Your task to perform on an android device: turn notification dots off Image 0: 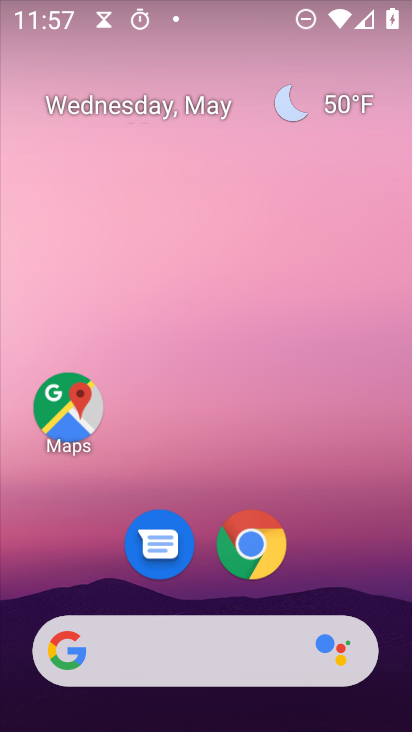
Step 0: drag from (251, 602) to (282, 326)
Your task to perform on an android device: turn notification dots off Image 1: 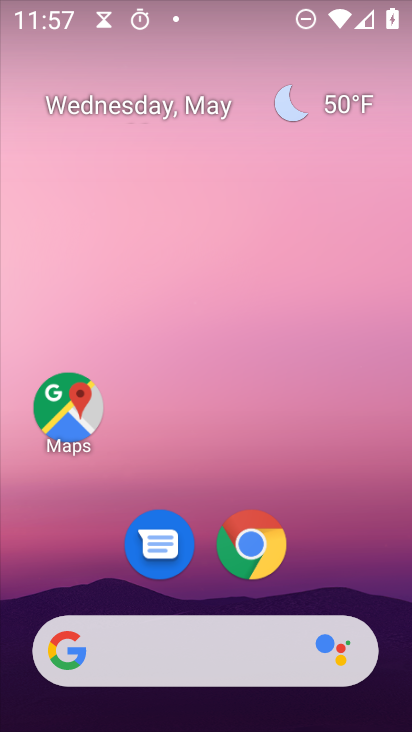
Step 1: drag from (209, 598) to (388, 12)
Your task to perform on an android device: turn notification dots off Image 2: 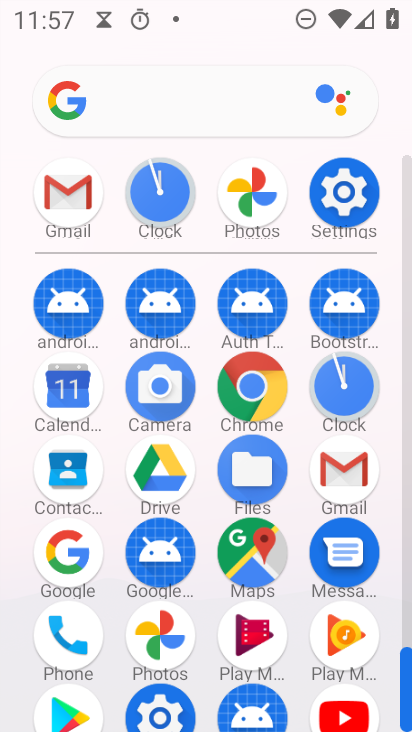
Step 2: click (341, 187)
Your task to perform on an android device: turn notification dots off Image 3: 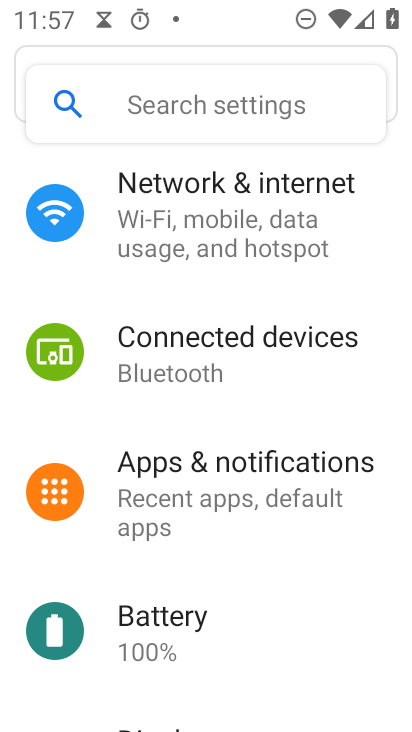
Step 3: click (245, 516)
Your task to perform on an android device: turn notification dots off Image 4: 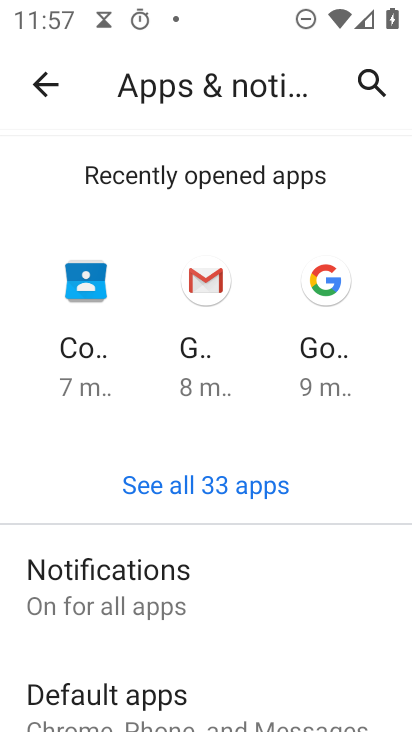
Step 4: click (123, 608)
Your task to perform on an android device: turn notification dots off Image 5: 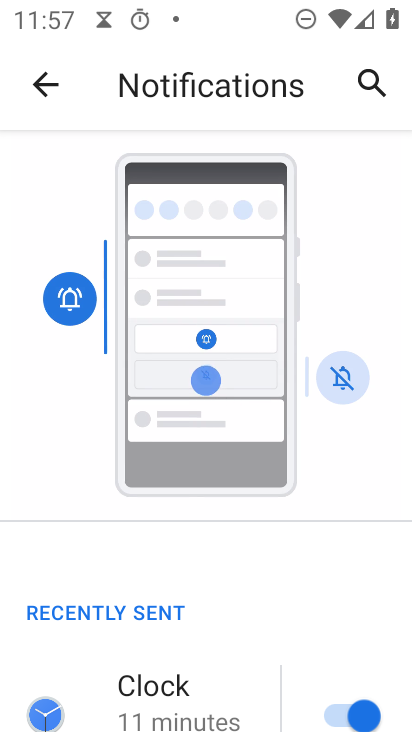
Step 5: drag from (206, 678) to (218, 274)
Your task to perform on an android device: turn notification dots off Image 6: 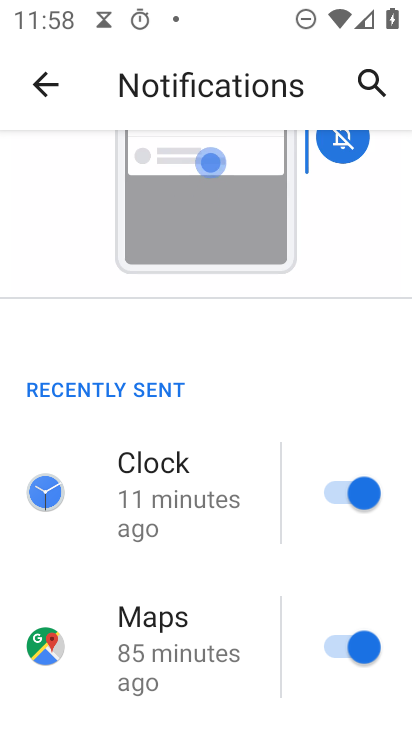
Step 6: drag from (212, 604) to (300, 98)
Your task to perform on an android device: turn notification dots off Image 7: 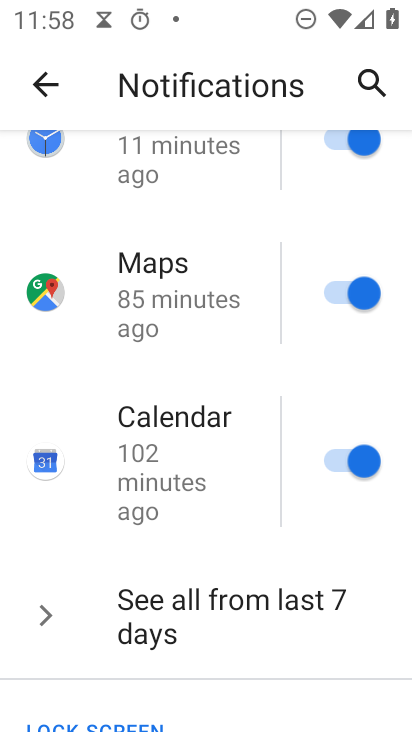
Step 7: drag from (176, 611) to (217, 52)
Your task to perform on an android device: turn notification dots off Image 8: 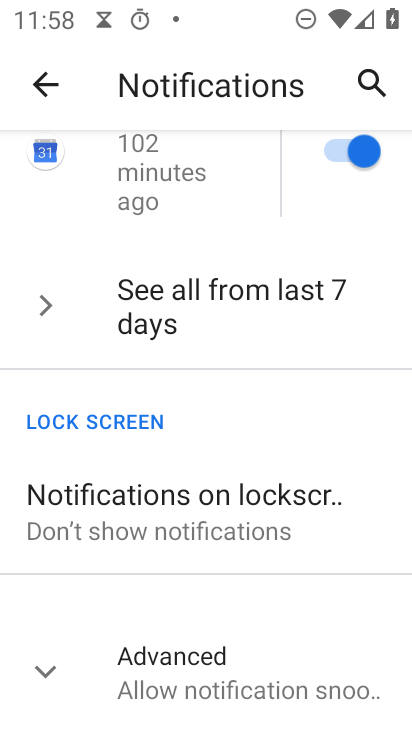
Step 8: click (164, 620)
Your task to perform on an android device: turn notification dots off Image 9: 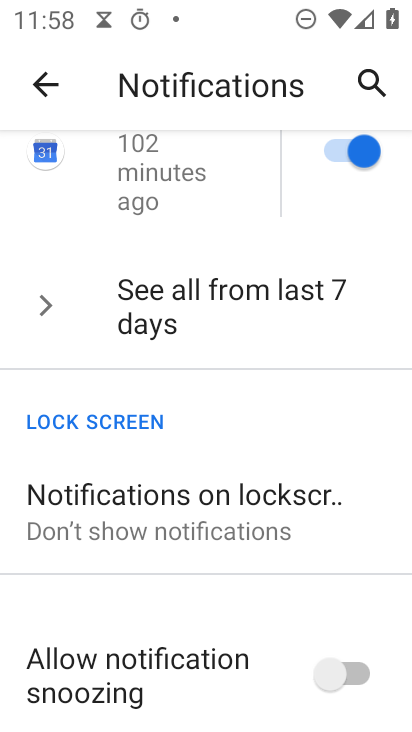
Step 9: task complete